Your task to perform on an android device: Toggle the flashlight Image 0: 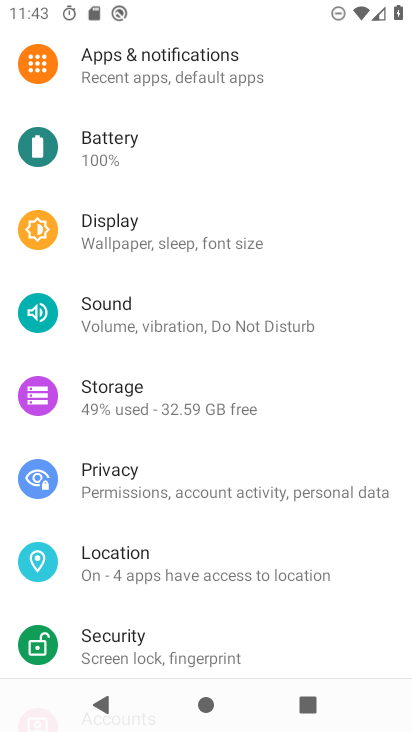
Step 0: drag from (207, 179) to (207, 325)
Your task to perform on an android device: Toggle the flashlight Image 1: 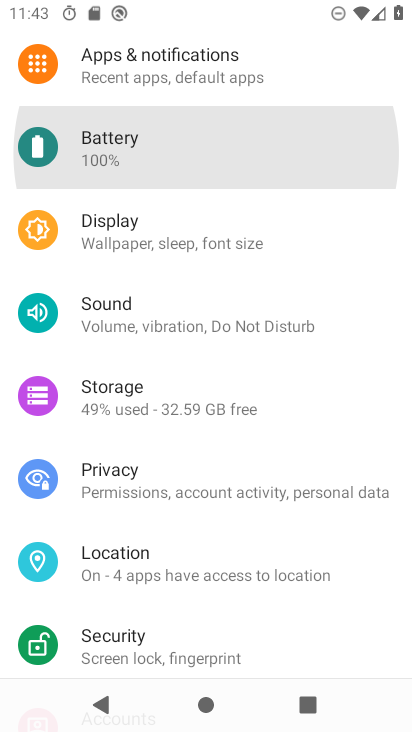
Step 1: task complete